Your task to perform on an android device: Show me the alarms in the clock app Image 0: 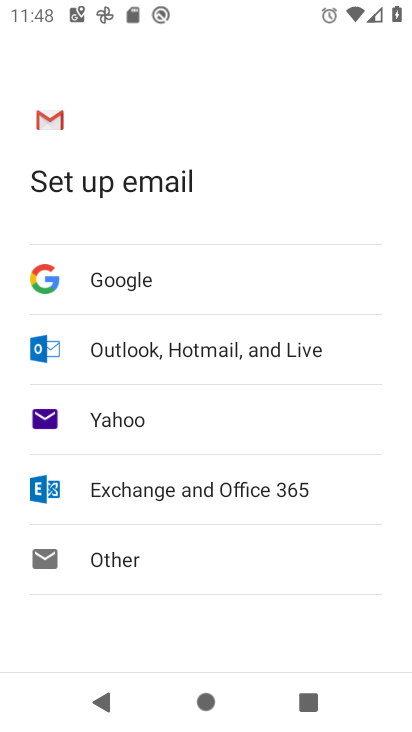
Step 0: press home button
Your task to perform on an android device: Show me the alarms in the clock app Image 1: 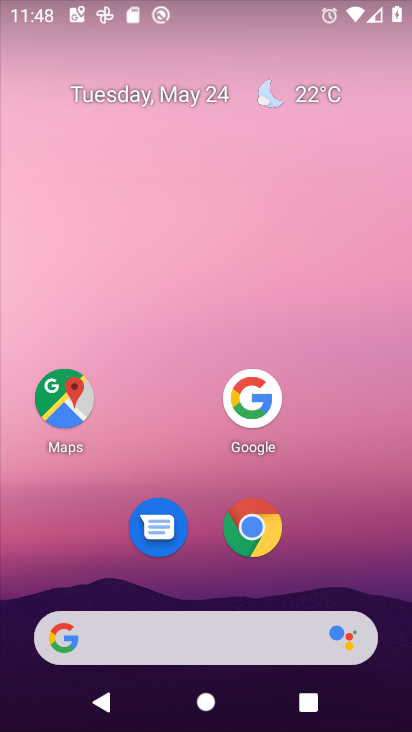
Step 1: drag from (203, 635) to (363, 184)
Your task to perform on an android device: Show me the alarms in the clock app Image 2: 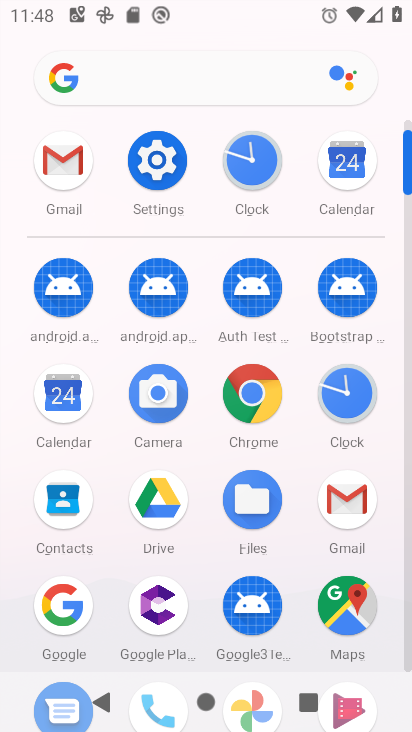
Step 2: click (341, 404)
Your task to perform on an android device: Show me the alarms in the clock app Image 3: 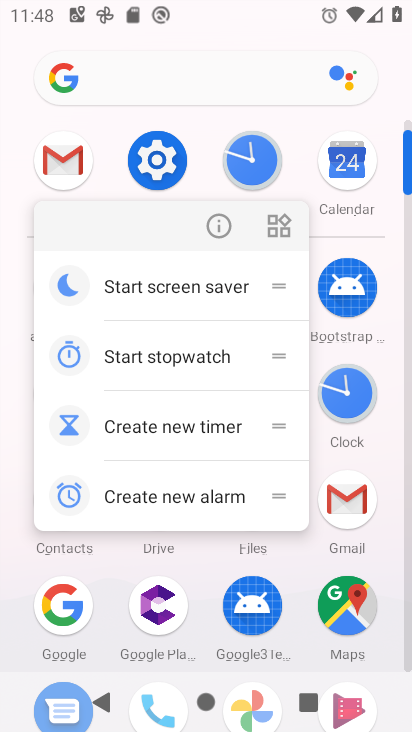
Step 3: click (359, 387)
Your task to perform on an android device: Show me the alarms in the clock app Image 4: 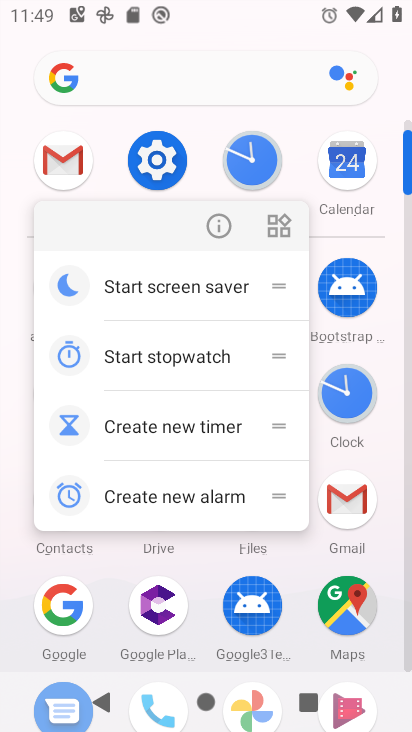
Step 4: click (344, 396)
Your task to perform on an android device: Show me the alarms in the clock app Image 5: 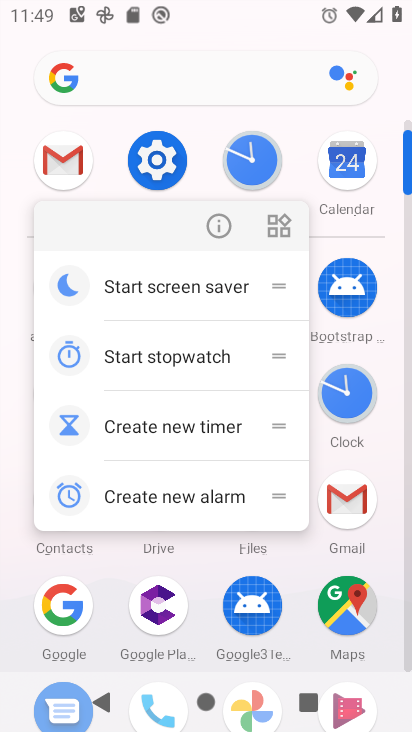
Step 5: click (339, 398)
Your task to perform on an android device: Show me the alarms in the clock app Image 6: 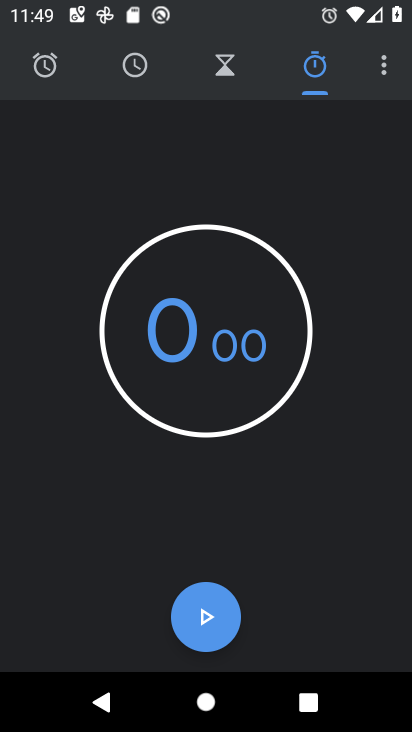
Step 6: click (49, 77)
Your task to perform on an android device: Show me the alarms in the clock app Image 7: 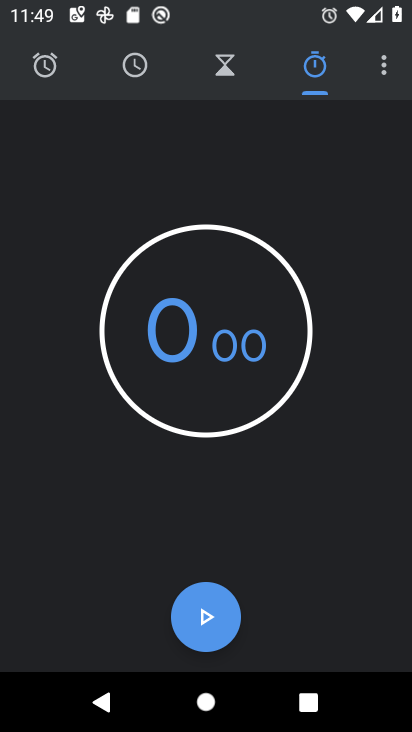
Step 7: click (40, 57)
Your task to perform on an android device: Show me the alarms in the clock app Image 8: 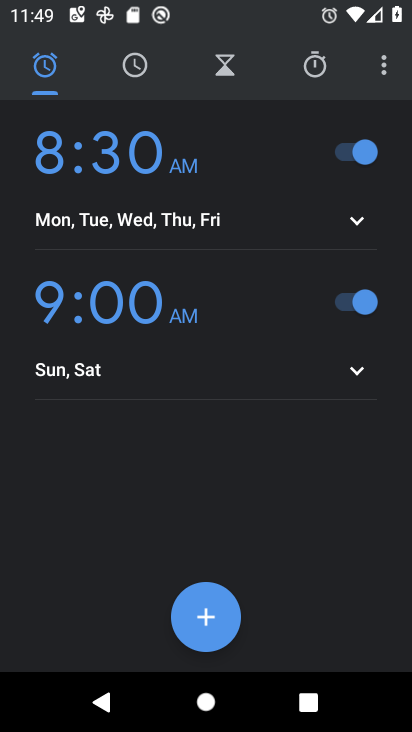
Step 8: task complete